Your task to perform on an android device: Open eBay Image 0: 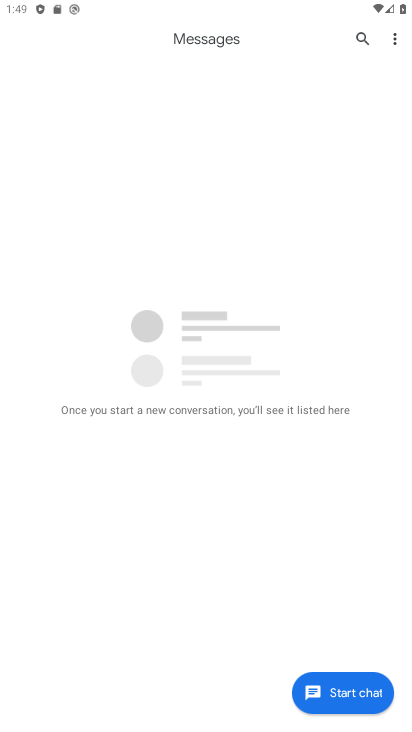
Step 0: press home button
Your task to perform on an android device: Open eBay Image 1: 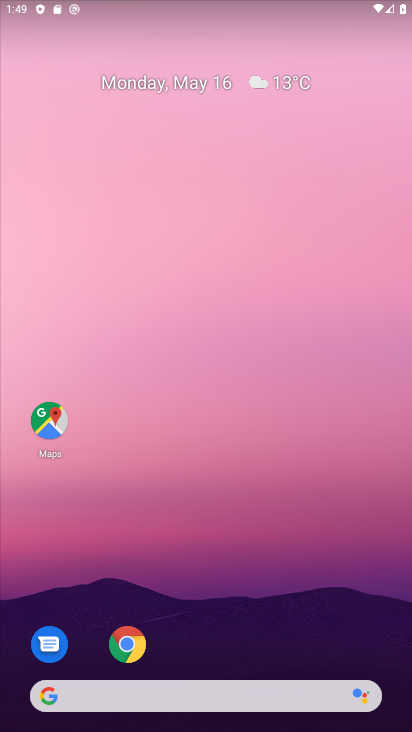
Step 1: click (131, 640)
Your task to perform on an android device: Open eBay Image 2: 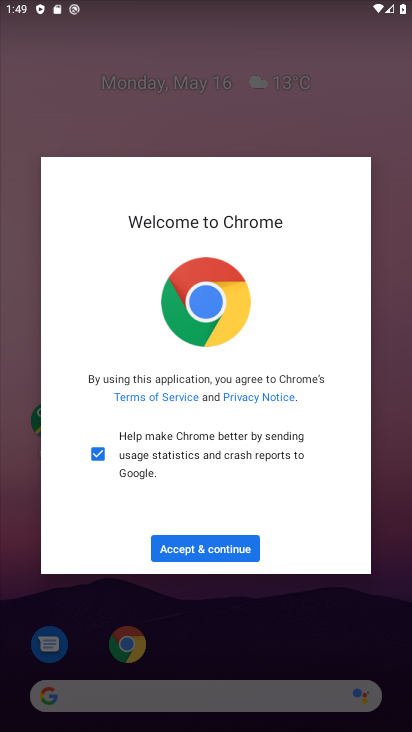
Step 2: click (211, 552)
Your task to perform on an android device: Open eBay Image 3: 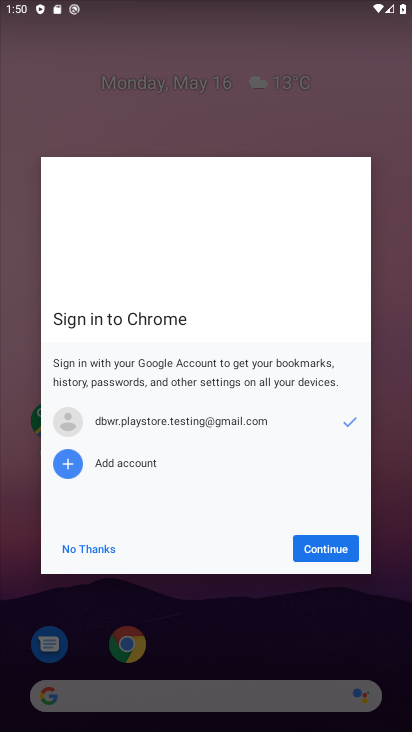
Step 3: click (315, 533)
Your task to perform on an android device: Open eBay Image 4: 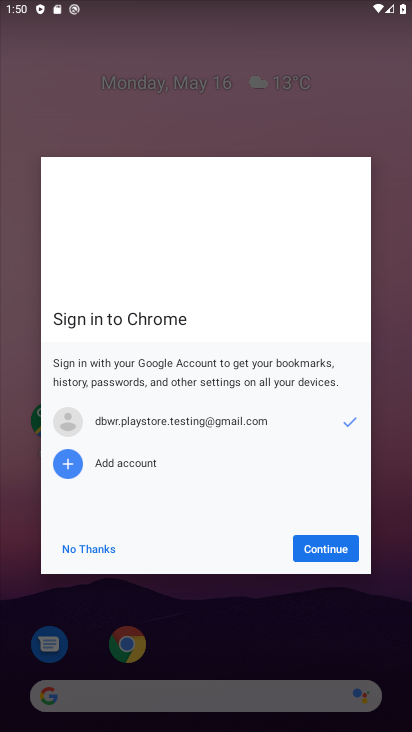
Step 4: click (314, 545)
Your task to perform on an android device: Open eBay Image 5: 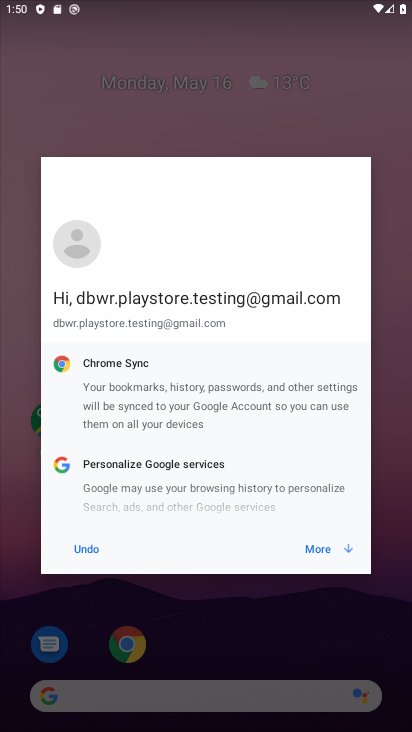
Step 5: click (319, 550)
Your task to perform on an android device: Open eBay Image 6: 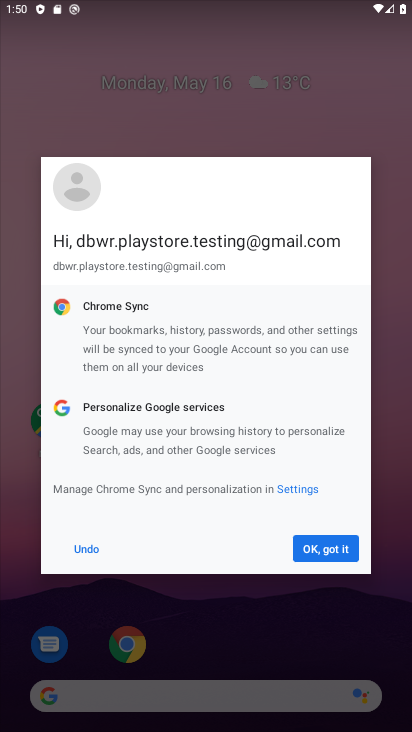
Step 6: click (319, 551)
Your task to perform on an android device: Open eBay Image 7: 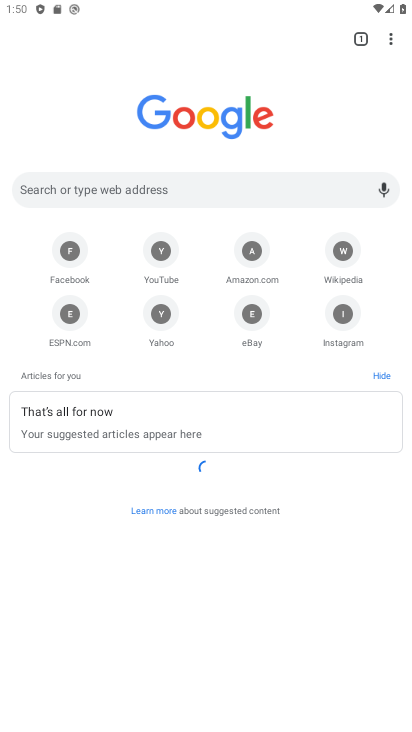
Step 7: click (248, 310)
Your task to perform on an android device: Open eBay Image 8: 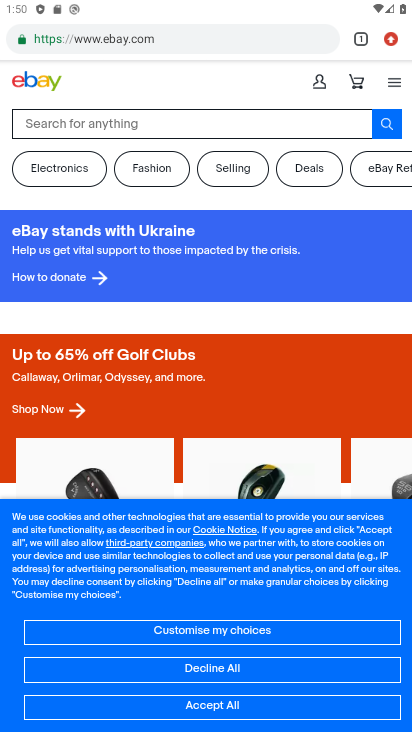
Step 8: task complete